Your task to perform on an android device: toggle wifi Image 0: 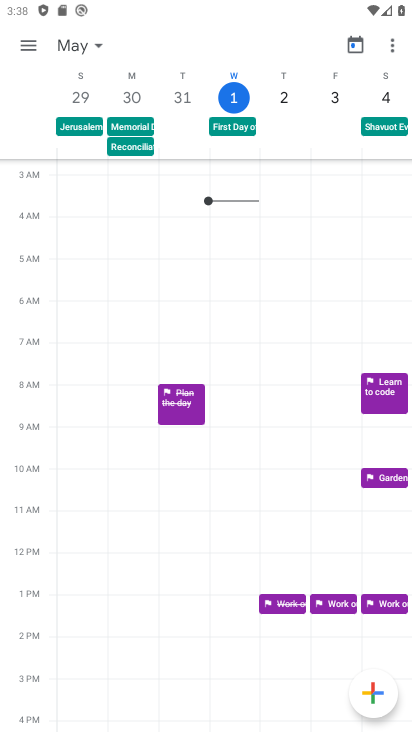
Step 0: press back button
Your task to perform on an android device: toggle wifi Image 1: 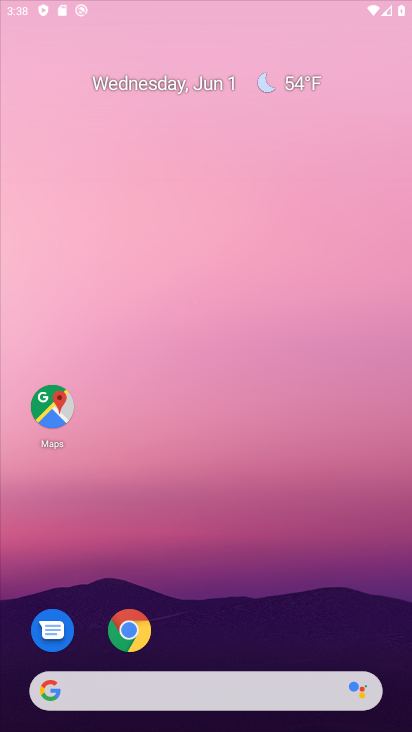
Step 1: press back button
Your task to perform on an android device: toggle wifi Image 2: 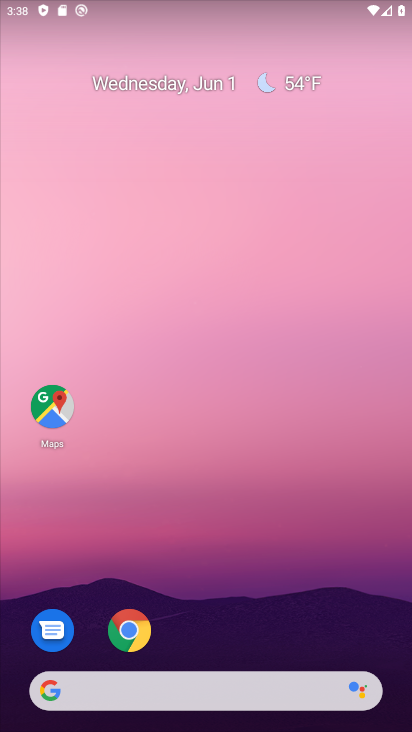
Step 2: drag from (247, 555) to (188, 58)
Your task to perform on an android device: toggle wifi Image 3: 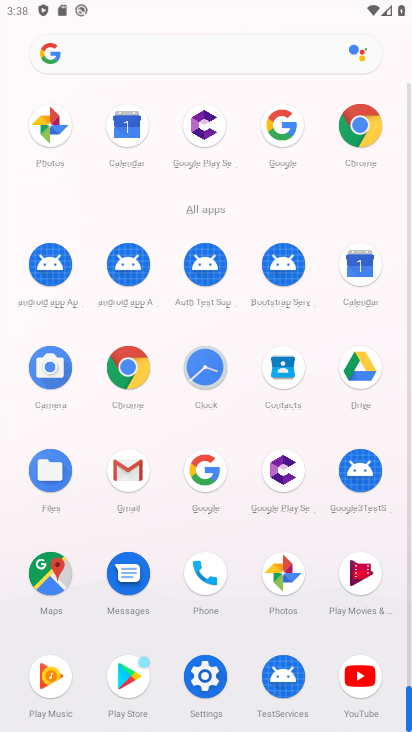
Step 3: drag from (14, 528) to (28, 149)
Your task to perform on an android device: toggle wifi Image 4: 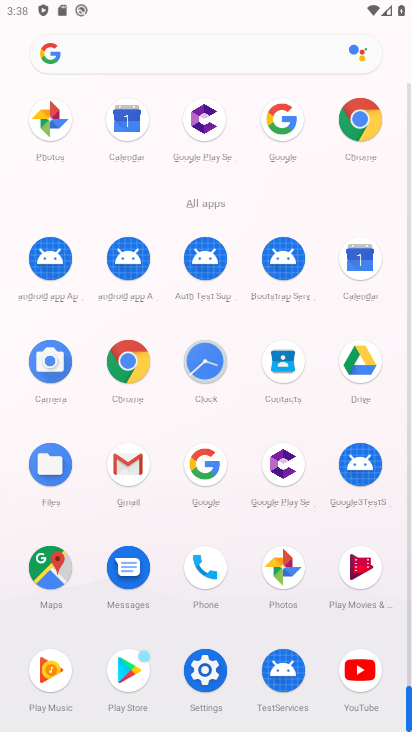
Step 4: click (205, 667)
Your task to perform on an android device: toggle wifi Image 5: 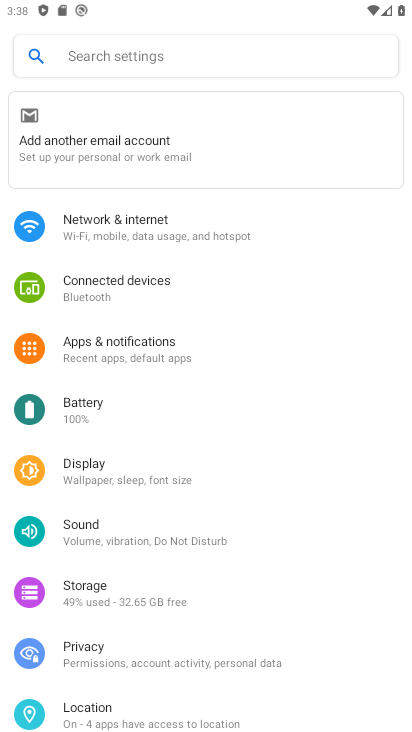
Step 5: click (180, 220)
Your task to perform on an android device: toggle wifi Image 6: 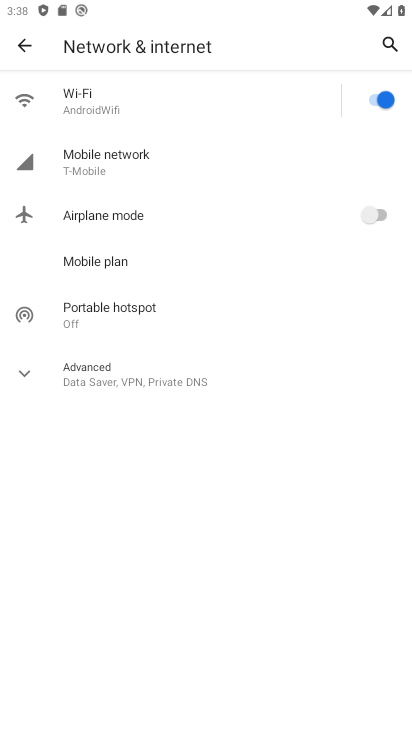
Step 6: click (15, 372)
Your task to perform on an android device: toggle wifi Image 7: 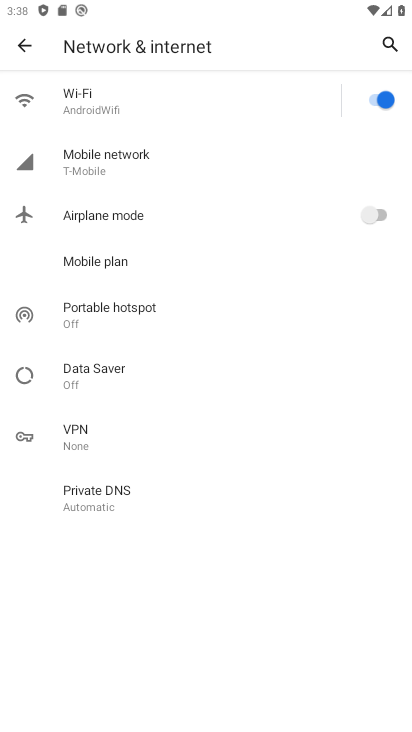
Step 7: click (379, 107)
Your task to perform on an android device: toggle wifi Image 8: 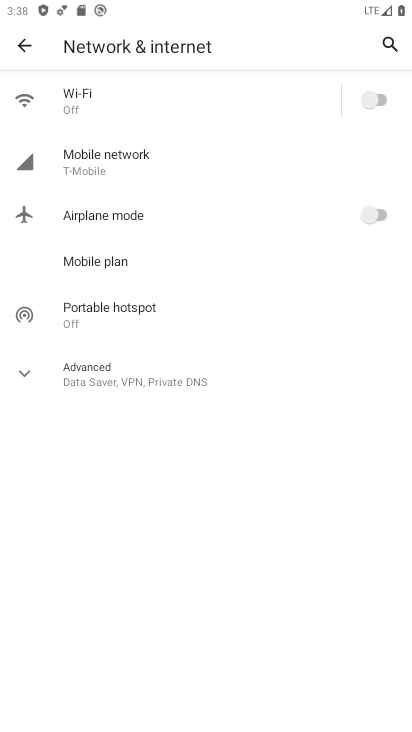
Step 8: click (32, 377)
Your task to perform on an android device: toggle wifi Image 9: 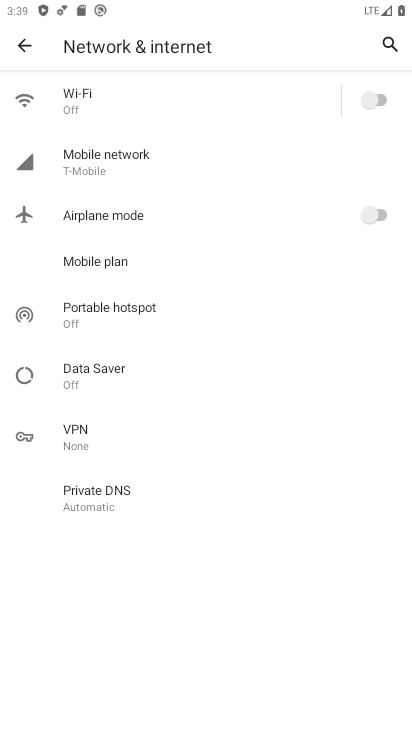
Step 9: task complete